Your task to perform on an android device: allow cookies in the chrome app Image 0: 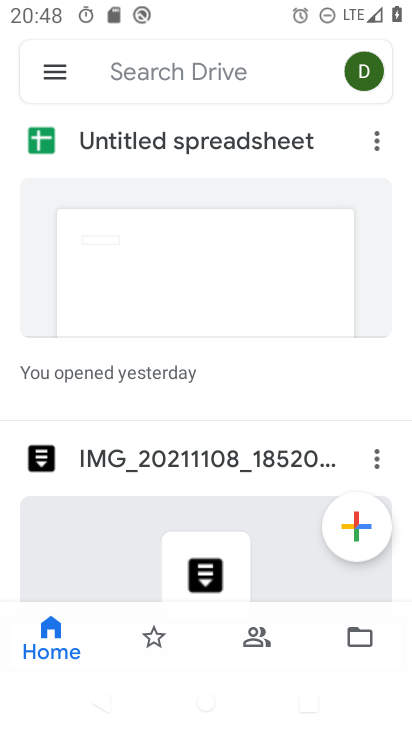
Step 0: press home button
Your task to perform on an android device: allow cookies in the chrome app Image 1: 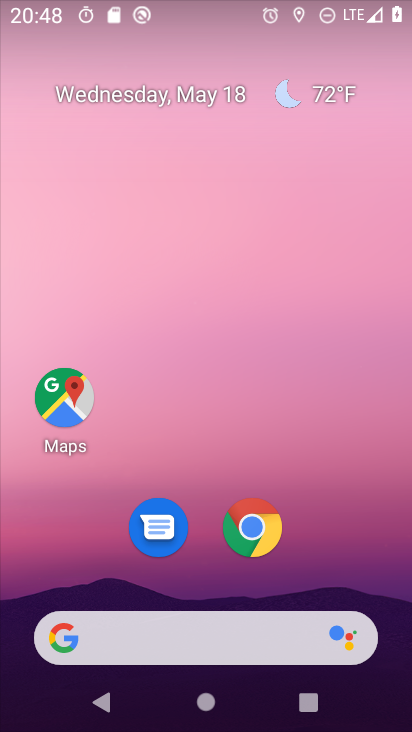
Step 1: drag from (396, 685) to (386, 100)
Your task to perform on an android device: allow cookies in the chrome app Image 2: 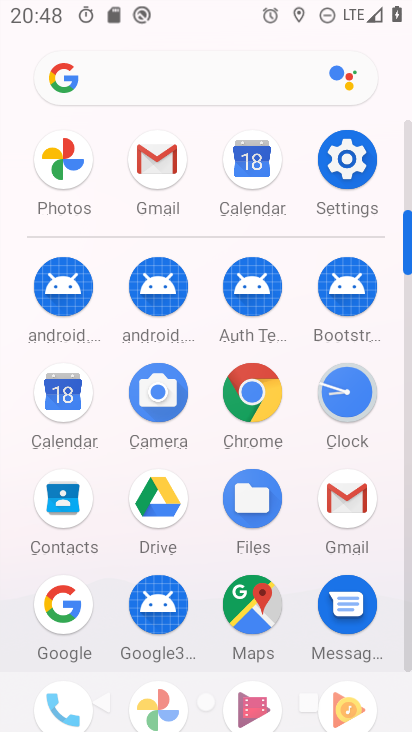
Step 2: click (251, 396)
Your task to perform on an android device: allow cookies in the chrome app Image 3: 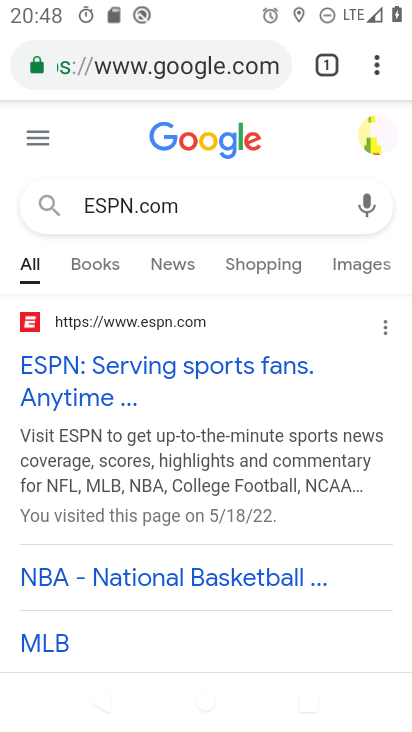
Step 3: click (250, 396)
Your task to perform on an android device: allow cookies in the chrome app Image 4: 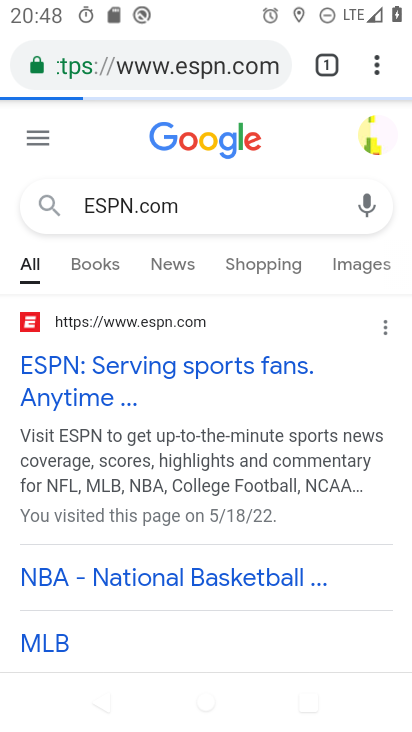
Step 4: click (373, 59)
Your task to perform on an android device: allow cookies in the chrome app Image 5: 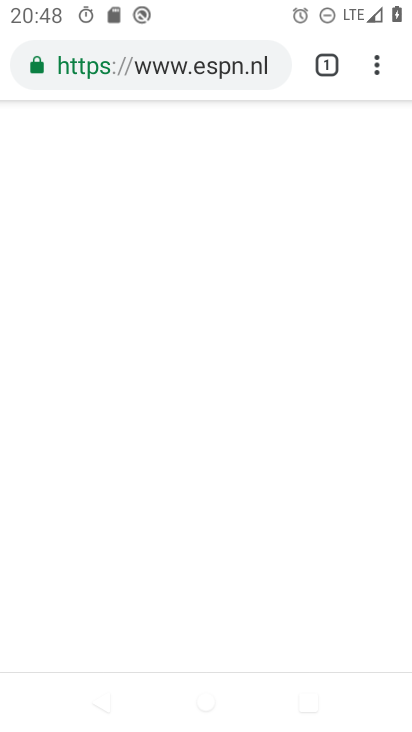
Step 5: click (379, 61)
Your task to perform on an android device: allow cookies in the chrome app Image 6: 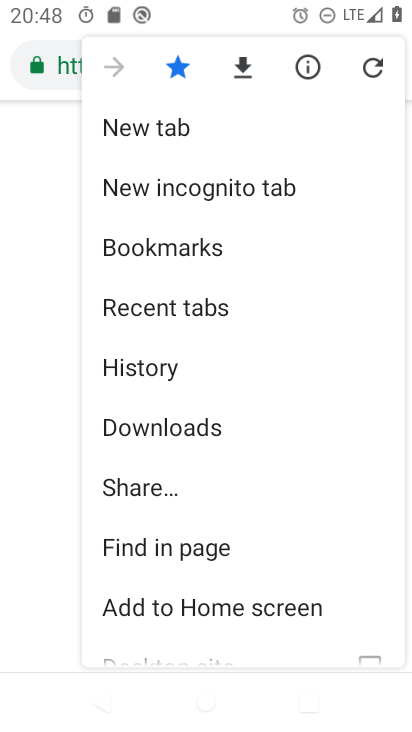
Step 6: drag from (347, 637) to (354, 276)
Your task to perform on an android device: allow cookies in the chrome app Image 7: 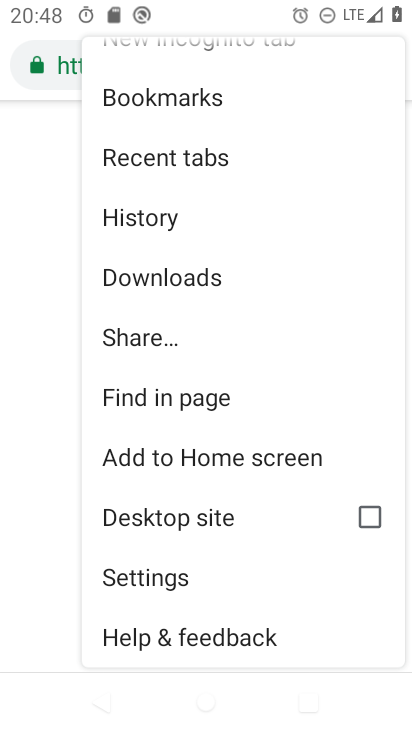
Step 7: click (149, 580)
Your task to perform on an android device: allow cookies in the chrome app Image 8: 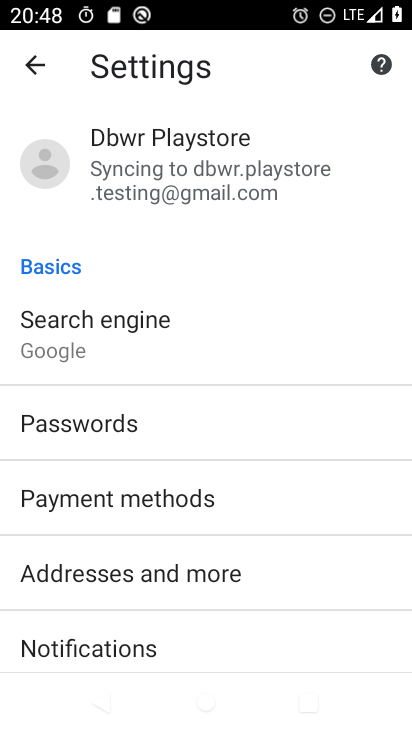
Step 8: drag from (296, 629) to (291, 369)
Your task to perform on an android device: allow cookies in the chrome app Image 9: 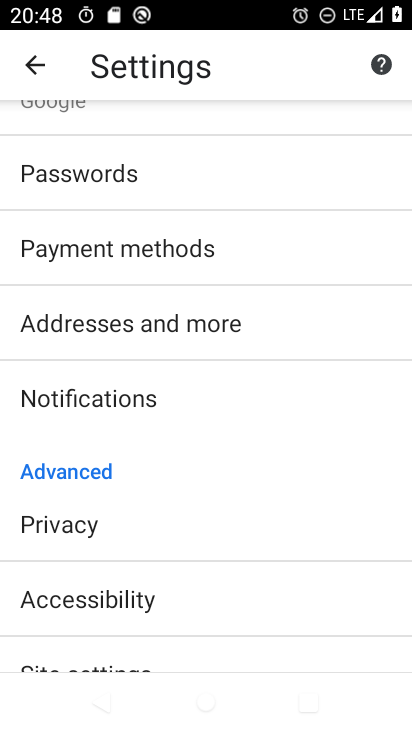
Step 9: drag from (283, 648) to (284, 577)
Your task to perform on an android device: allow cookies in the chrome app Image 10: 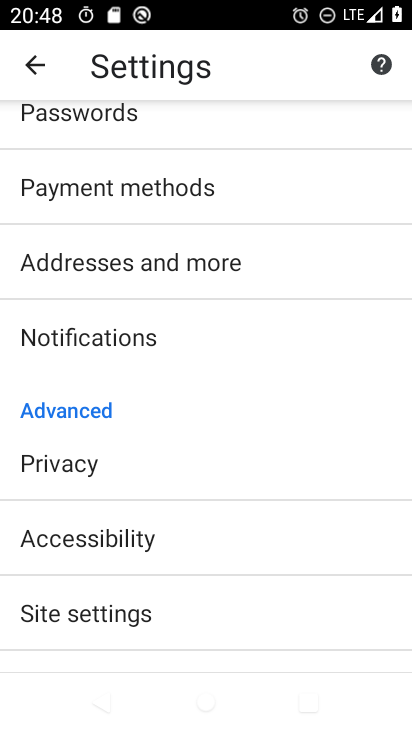
Step 10: drag from (257, 649) to (262, 408)
Your task to perform on an android device: allow cookies in the chrome app Image 11: 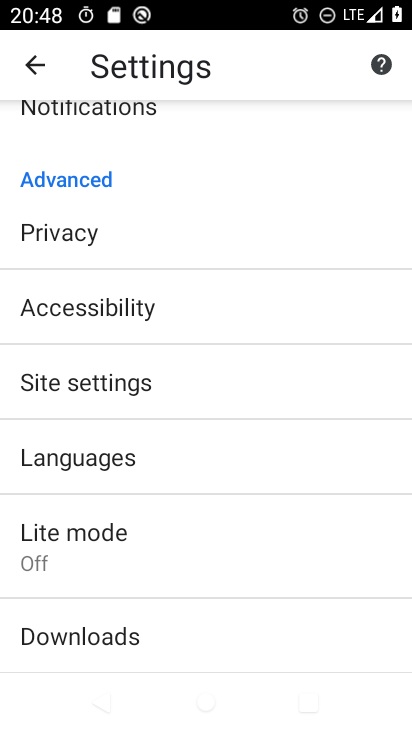
Step 11: click (87, 385)
Your task to perform on an android device: allow cookies in the chrome app Image 12: 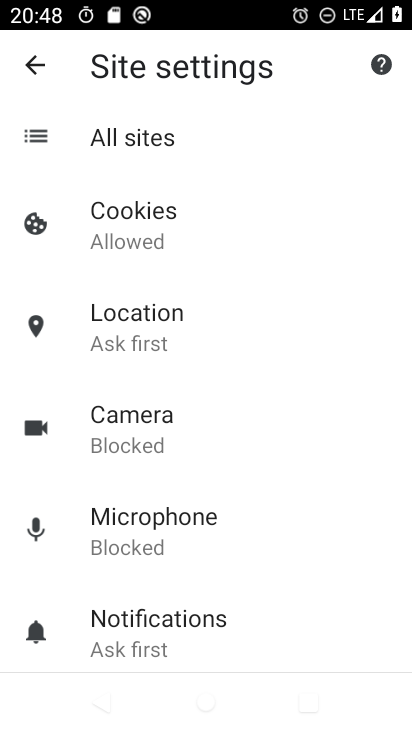
Step 12: click (145, 218)
Your task to perform on an android device: allow cookies in the chrome app Image 13: 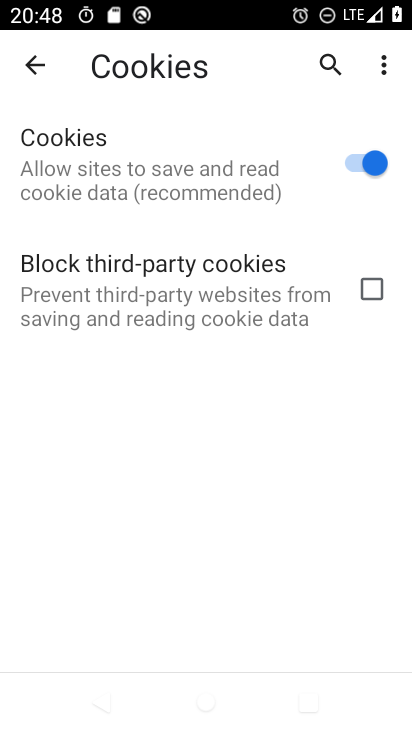
Step 13: task complete